Your task to perform on an android device: allow notifications from all sites in the chrome app Image 0: 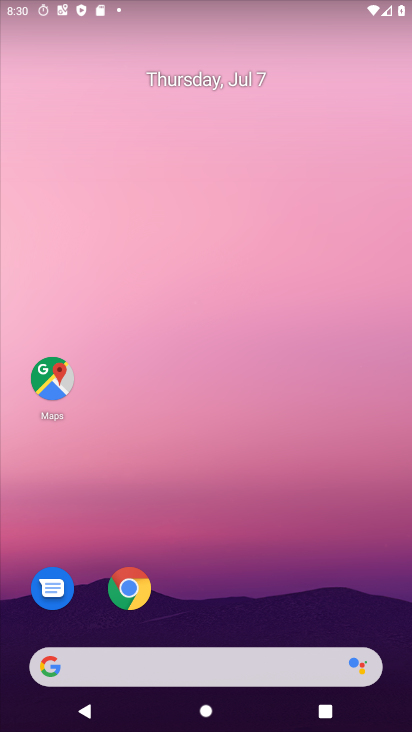
Step 0: click (126, 589)
Your task to perform on an android device: allow notifications from all sites in the chrome app Image 1: 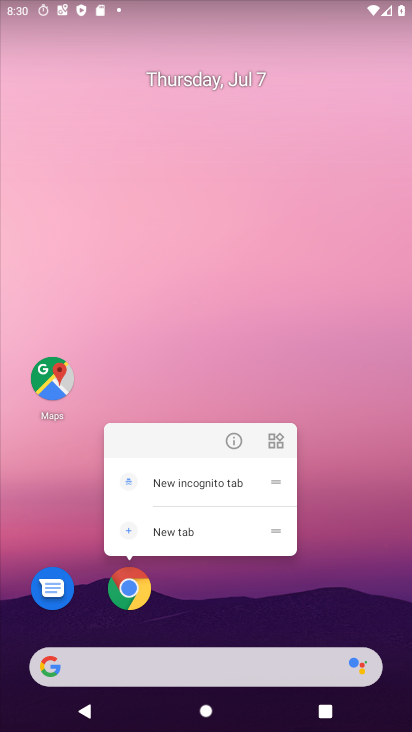
Step 1: click (138, 591)
Your task to perform on an android device: allow notifications from all sites in the chrome app Image 2: 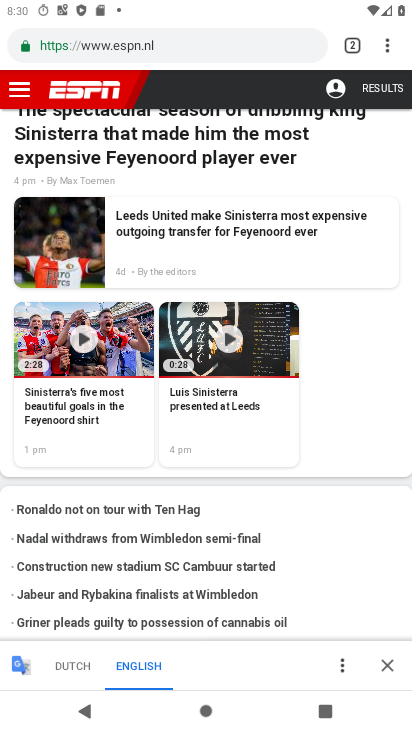
Step 2: drag from (389, 45) to (255, 560)
Your task to perform on an android device: allow notifications from all sites in the chrome app Image 3: 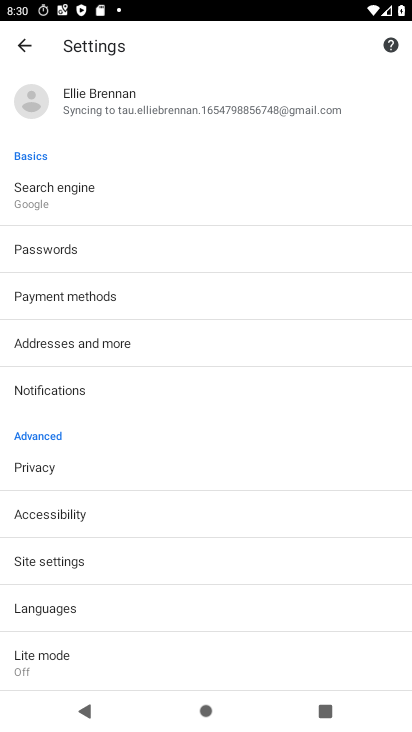
Step 3: click (94, 560)
Your task to perform on an android device: allow notifications from all sites in the chrome app Image 4: 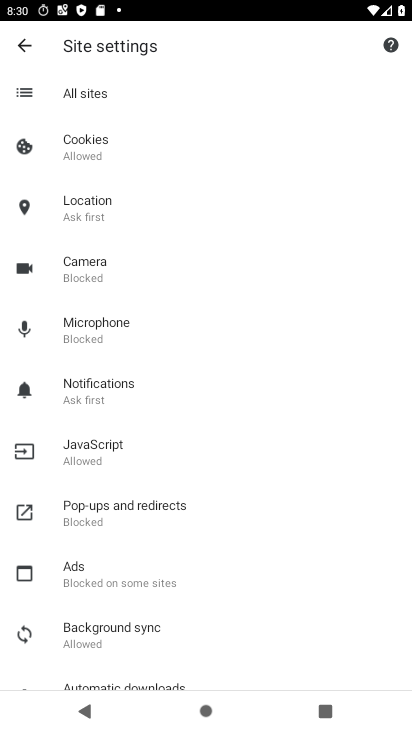
Step 4: click (86, 393)
Your task to perform on an android device: allow notifications from all sites in the chrome app Image 5: 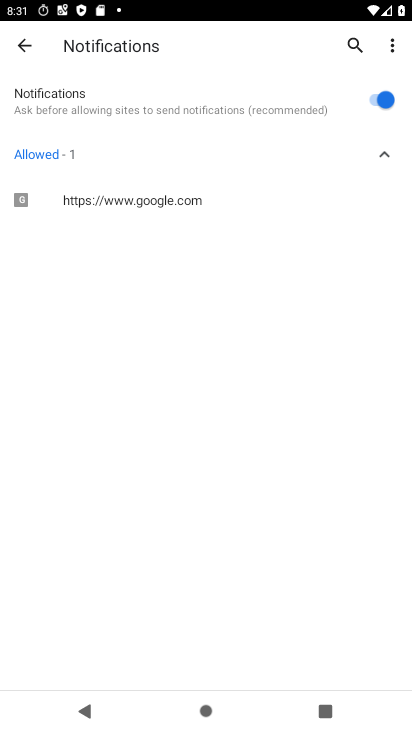
Step 5: task complete